Your task to perform on an android device: set the timer Image 0: 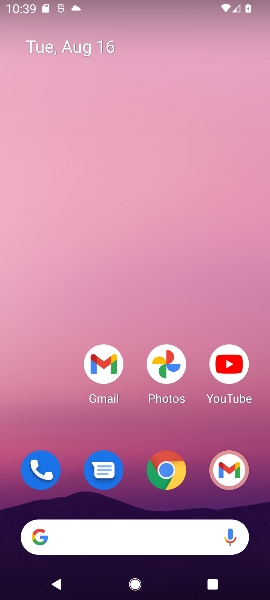
Step 0: drag from (62, 400) to (62, 1)
Your task to perform on an android device: set the timer Image 1: 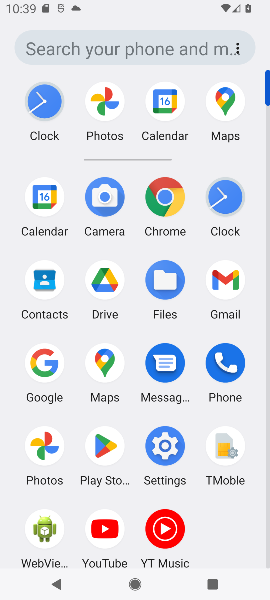
Step 1: click (227, 196)
Your task to perform on an android device: set the timer Image 2: 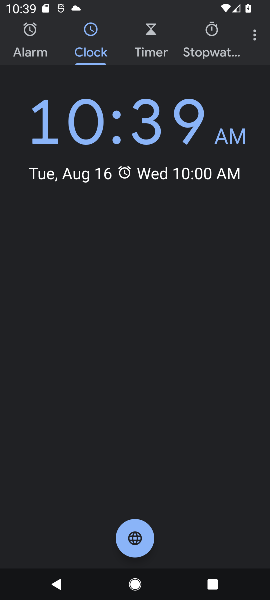
Step 2: click (154, 31)
Your task to perform on an android device: set the timer Image 3: 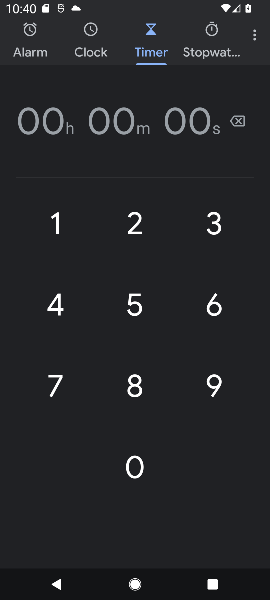
Step 3: task complete